Your task to perform on an android device: Go to sound settings Image 0: 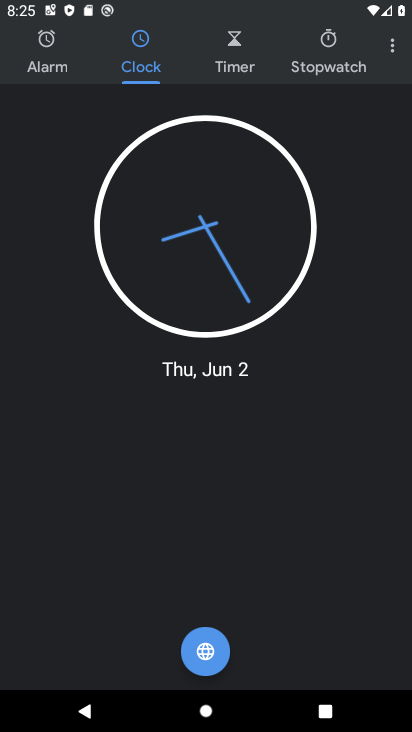
Step 0: press home button
Your task to perform on an android device: Go to sound settings Image 1: 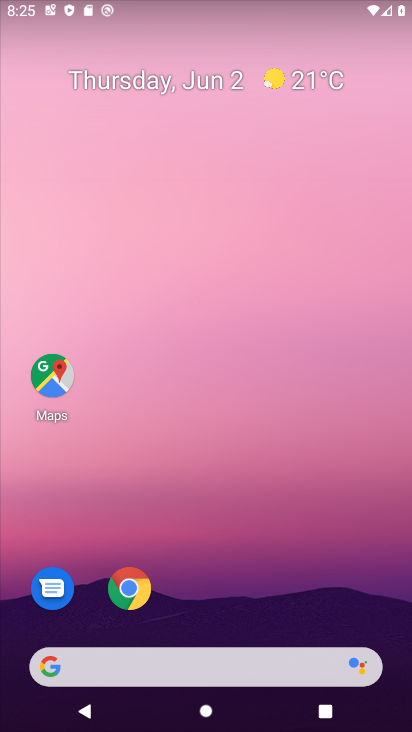
Step 1: drag from (201, 648) to (248, 141)
Your task to perform on an android device: Go to sound settings Image 2: 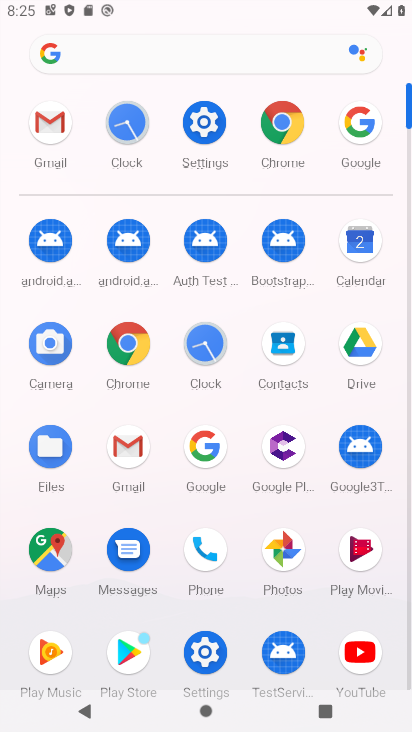
Step 2: click (212, 130)
Your task to perform on an android device: Go to sound settings Image 3: 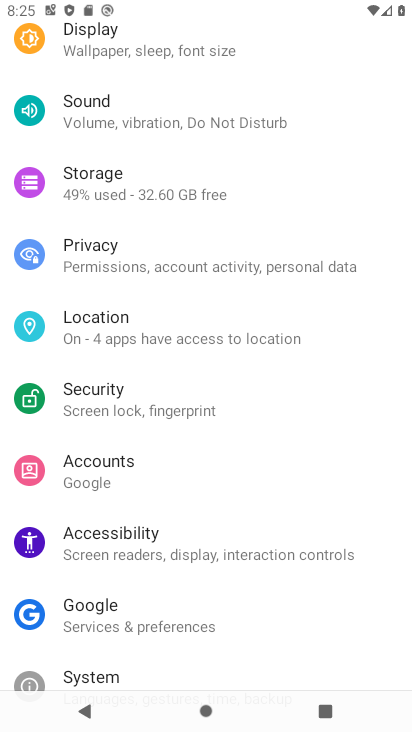
Step 3: click (117, 115)
Your task to perform on an android device: Go to sound settings Image 4: 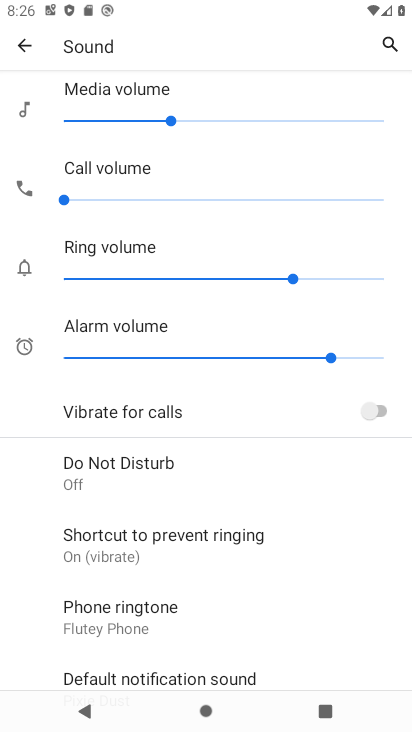
Step 4: task complete